Your task to perform on an android device: Open calendar and show me the third week of next month Image 0: 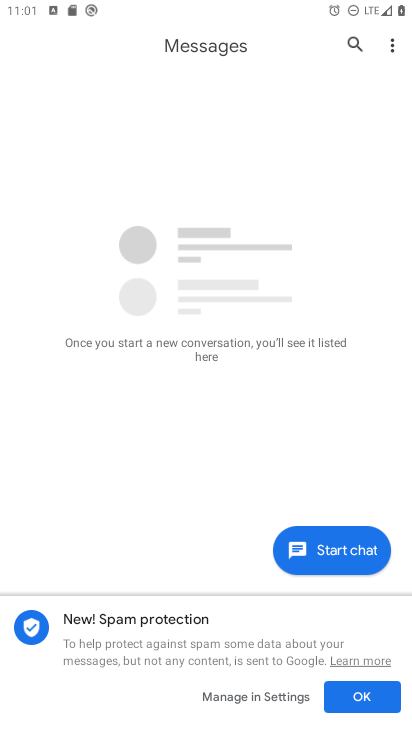
Step 0: drag from (160, 688) to (225, 191)
Your task to perform on an android device: Open calendar and show me the third week of next month Image 1: 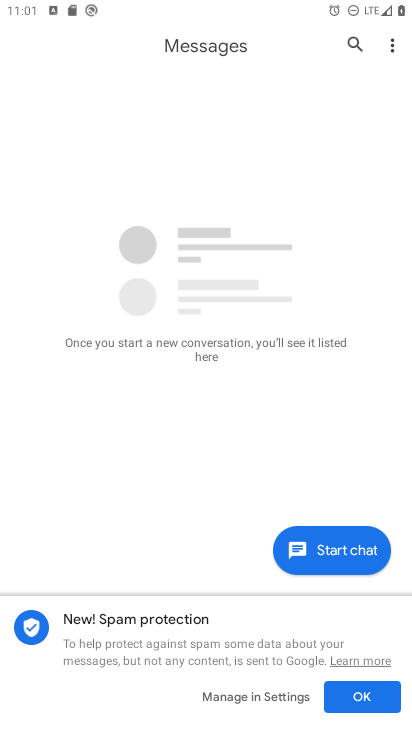
Step 1: press home button
Your task to perform on an android device: Open calendar and show me the third week of next month Image 2: 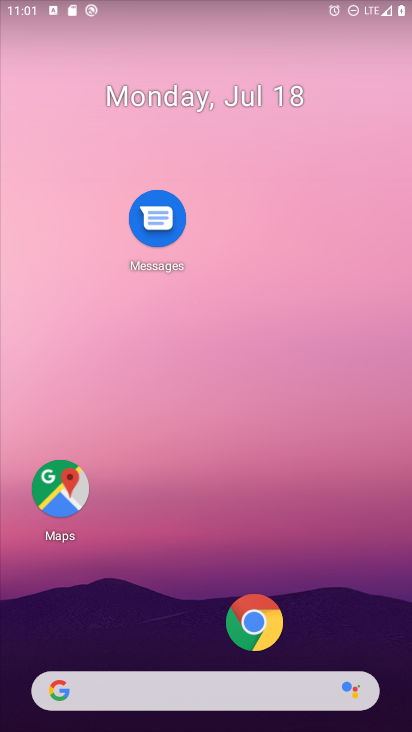
Step 2: drag from (183, 597) to (246, 185)
Your task to perform on an android device: Open calendar and show me the third week of next month Image 3: 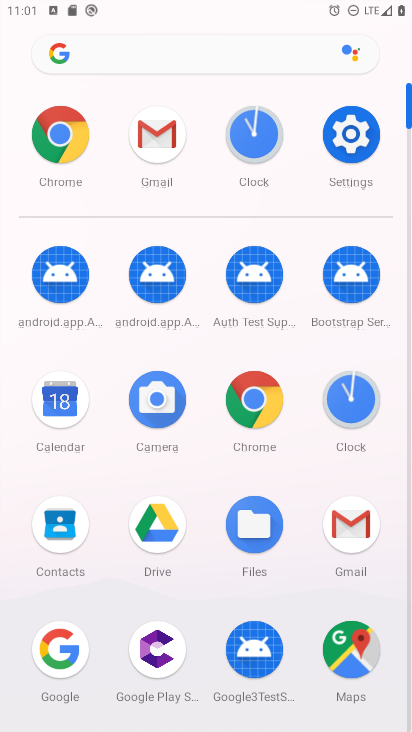
Step 3: click (49, 411)
Your task to perform on an android device: Open calendar and show me the third week of next month Image 4: 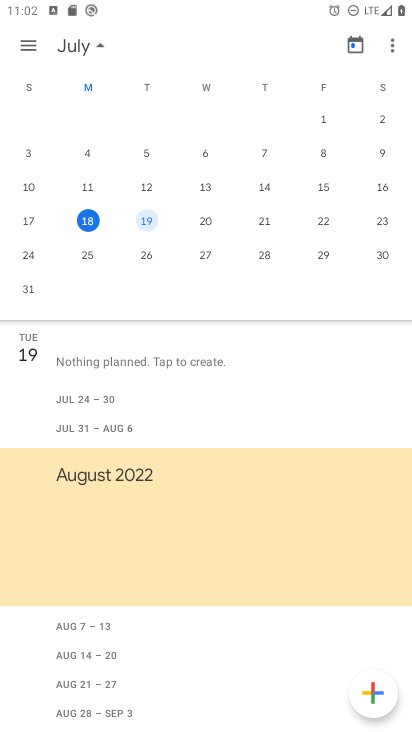
Step 4: drag from (345, 234) to (0, 213)
Your task to perform on an android device: Open calendar and show me the third week of next month Image 5: 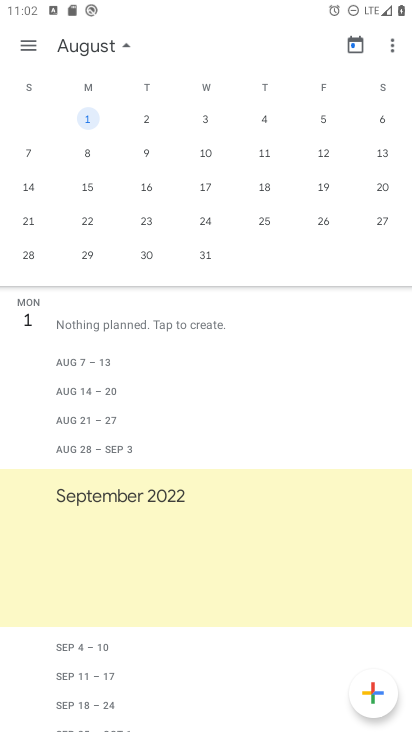
Step 5: click (84, 187)
Your task to perform on an android device: Open calendar and show me the third week of next month Image 6: 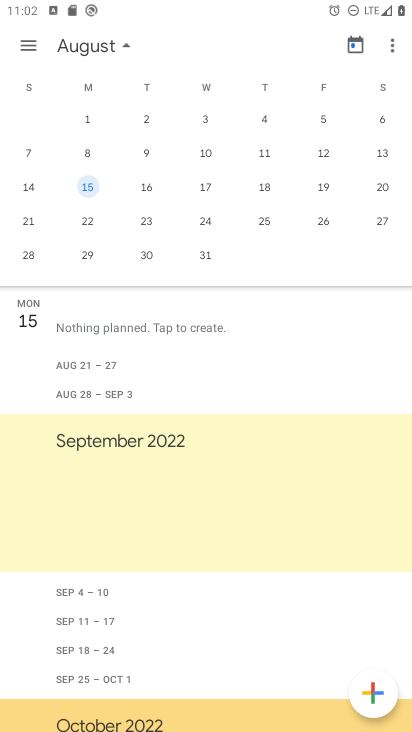
Step 6: task complete